Your task to perform on an android device: Open Google Maps and go to "Timeline" Image 0: 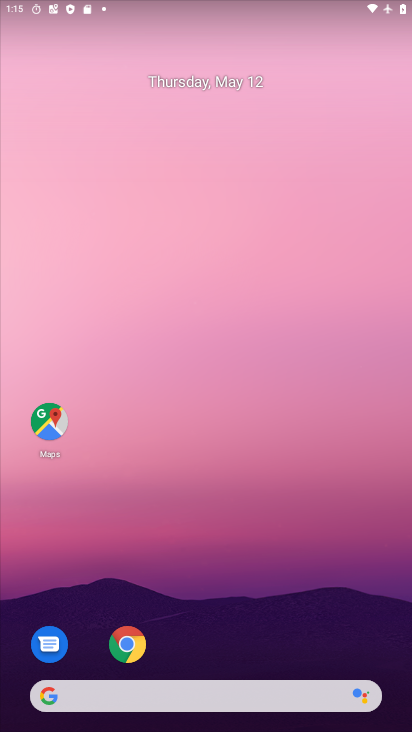
Step 0: click (30, 414)
Your task to perform on an android device: Open Google Maps and go to "Timeline" Image 1: 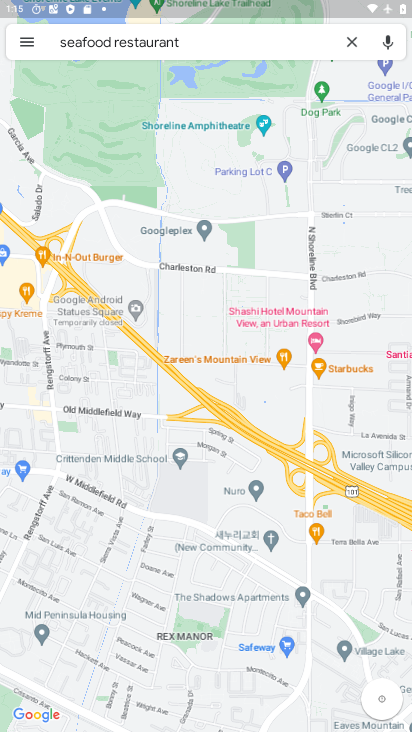
Step 1: click (18, 41)
Your task to perform on an android device: Open Google Maps and go to "Timeline" Image 2: 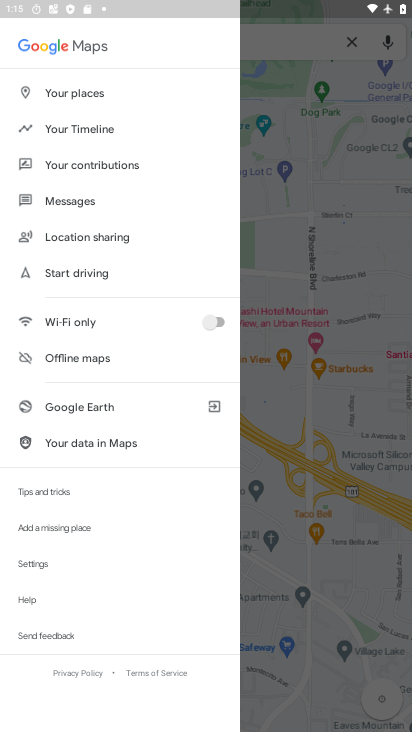
Step 2: click (97, 124)
Your task to perform on an android device: Open Google Maps and go to "Timeline" Image 3: 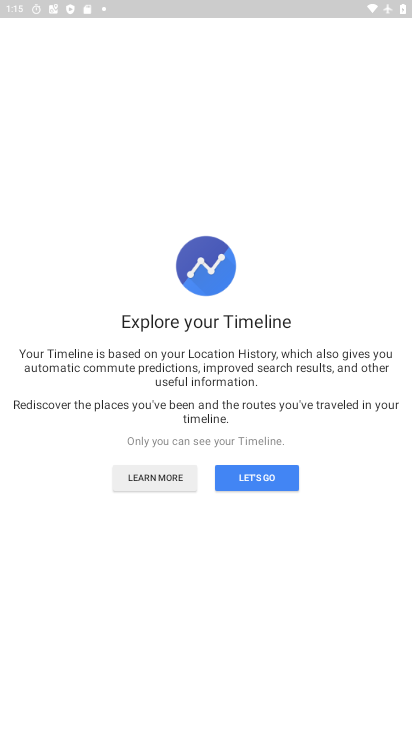
Step 3: click (235, 474)
Your task to perform on an android device: Open Google Maps and go to "Timeline" Image 4: 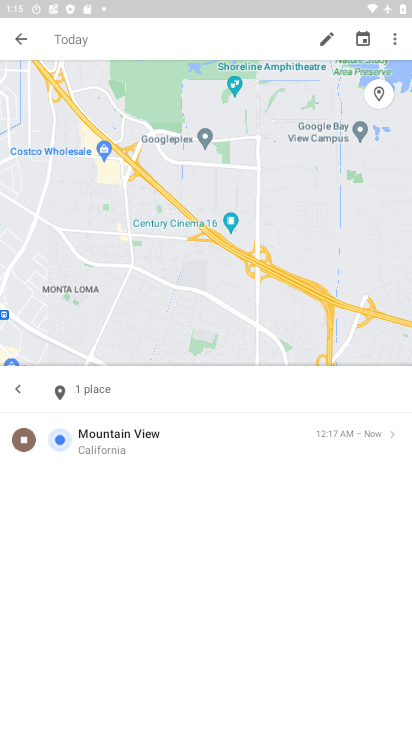
Step 4: task complete